Your task to perform on an android device: Install the Yahoo app Image 0: 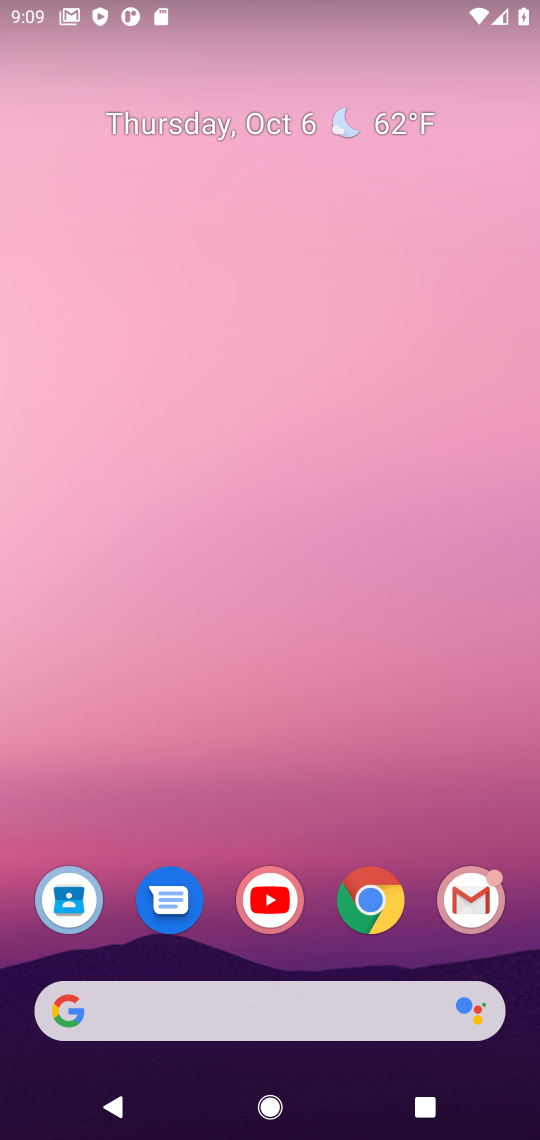
Step 0: press home button
Your task to perform on an android device: Install the Yahoo app Image 1: 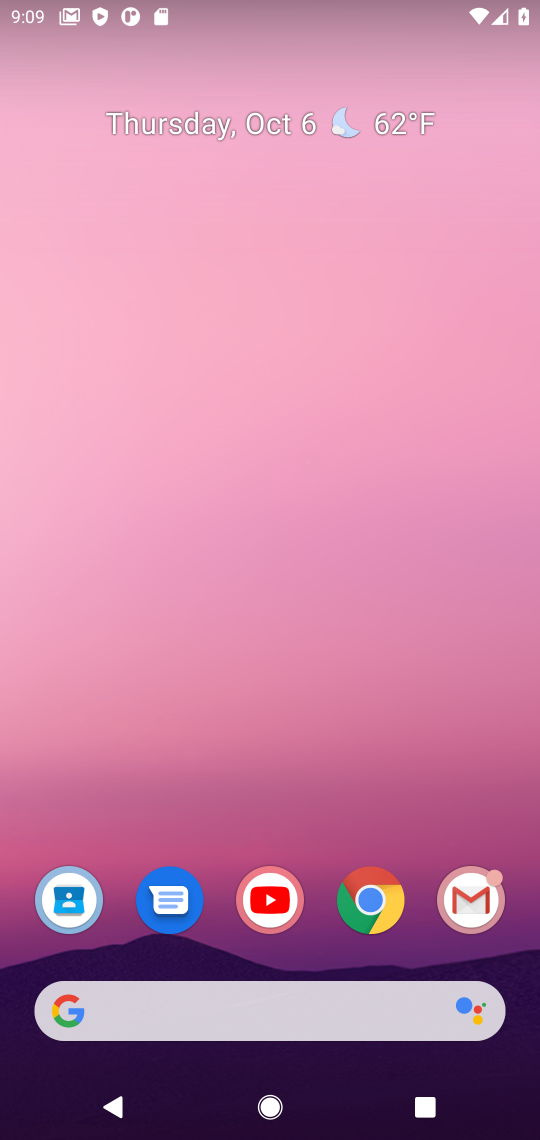
Step 1: drag from (483, 763) to (461, 40)
Your task to perform on an android device: Install the Yahoo app Image 2: 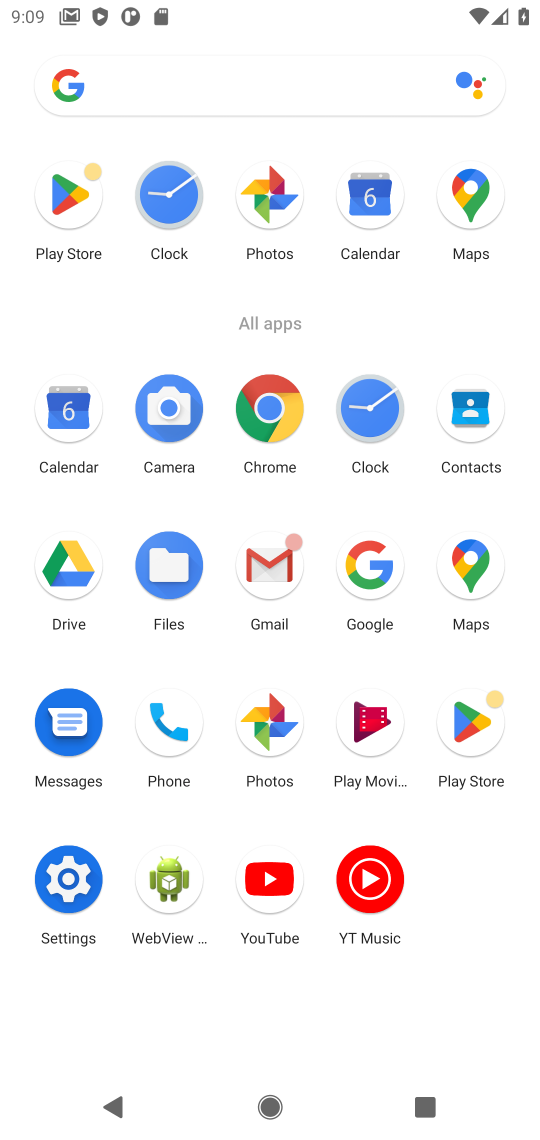
Step 2: click (473, 720)
Your task to perform on an android device: Install the Yahoo app Image 3: 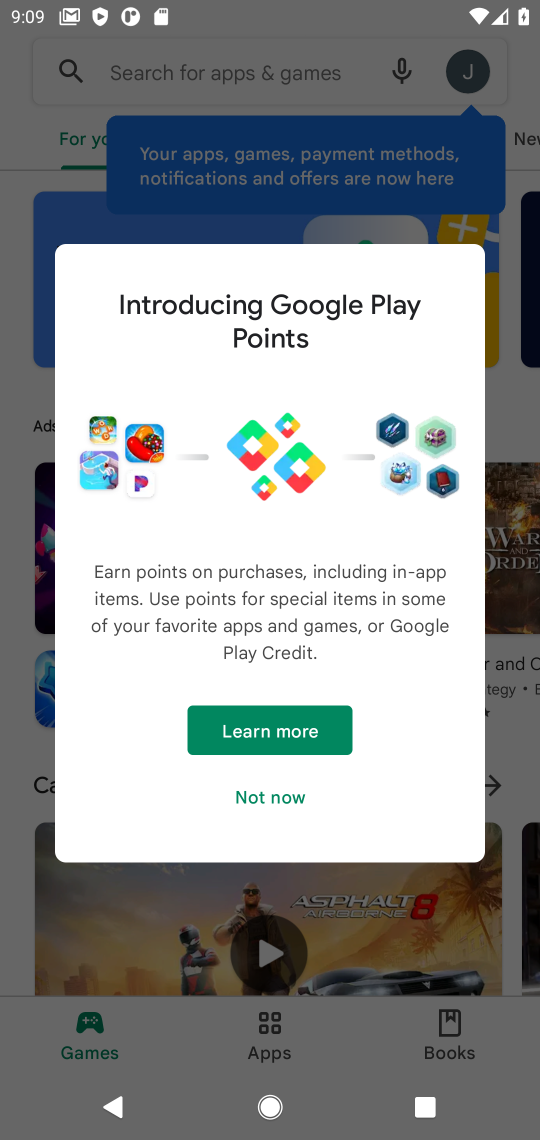
Step 3: click (270, 792)
Your task to perform on an android device: Install the Yahoo app Image 4: 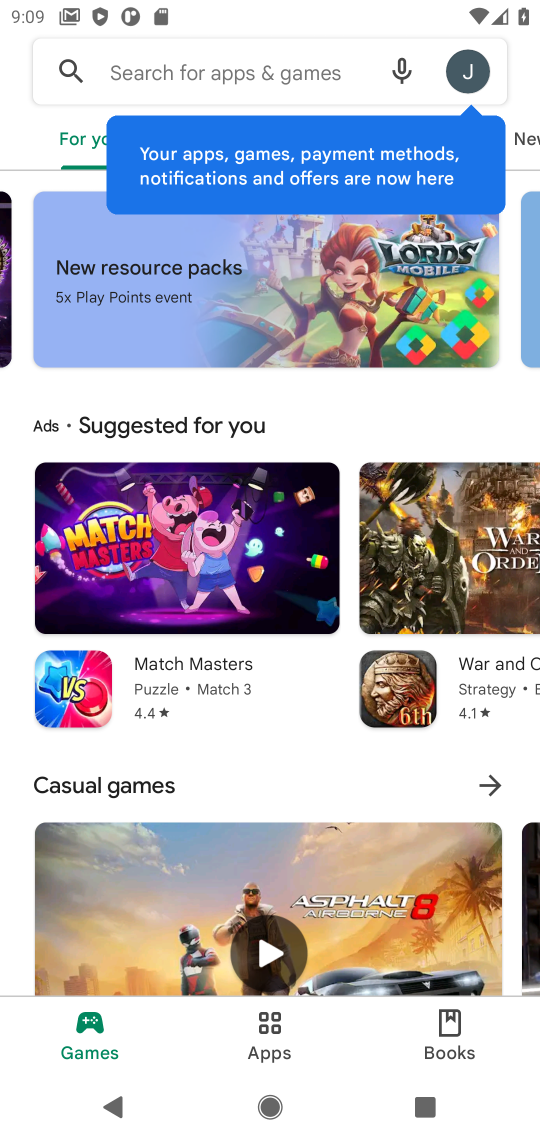
Step 4: click (200, 63)
Your task to perform on an android device: Install the Yahoo app Image 5: 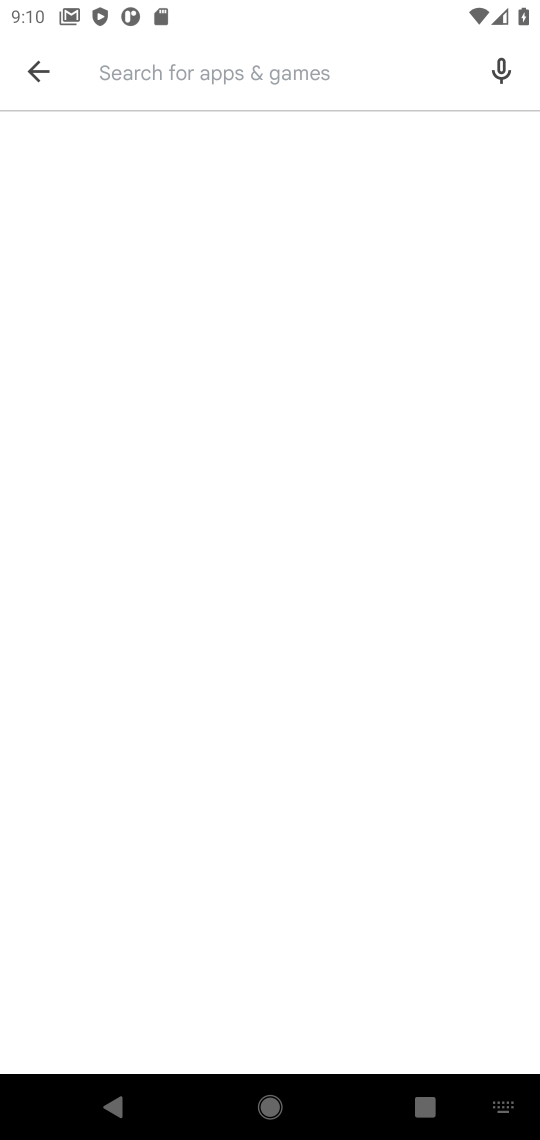
Step 5: type "yahoo app"
Your task to perform on an android device: Install the Yahoo app Image 6: 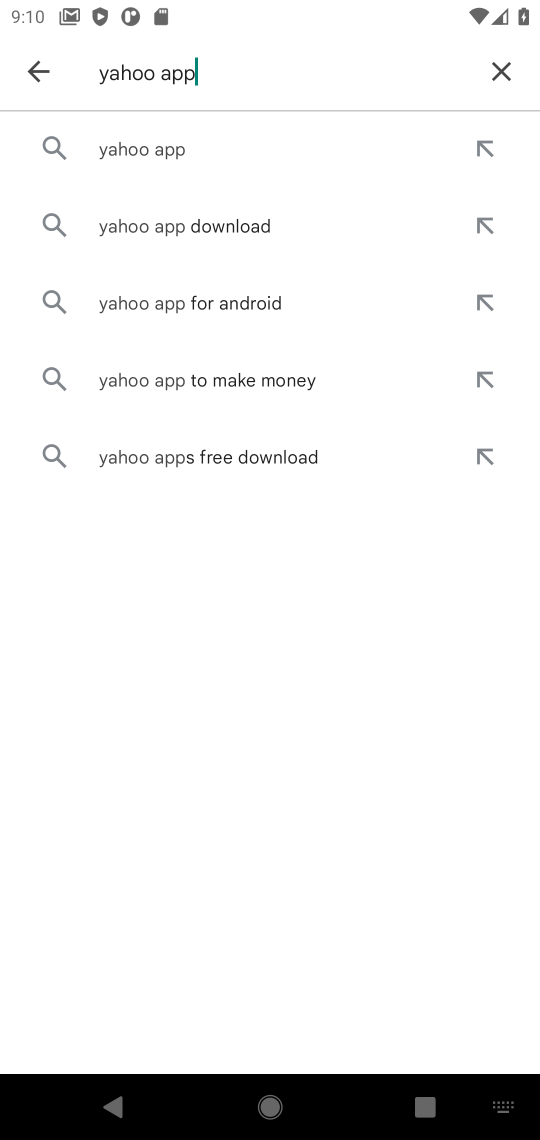
Step 6: press enter
Your task to perform on an android device: Install the Yahoo app Image 7: 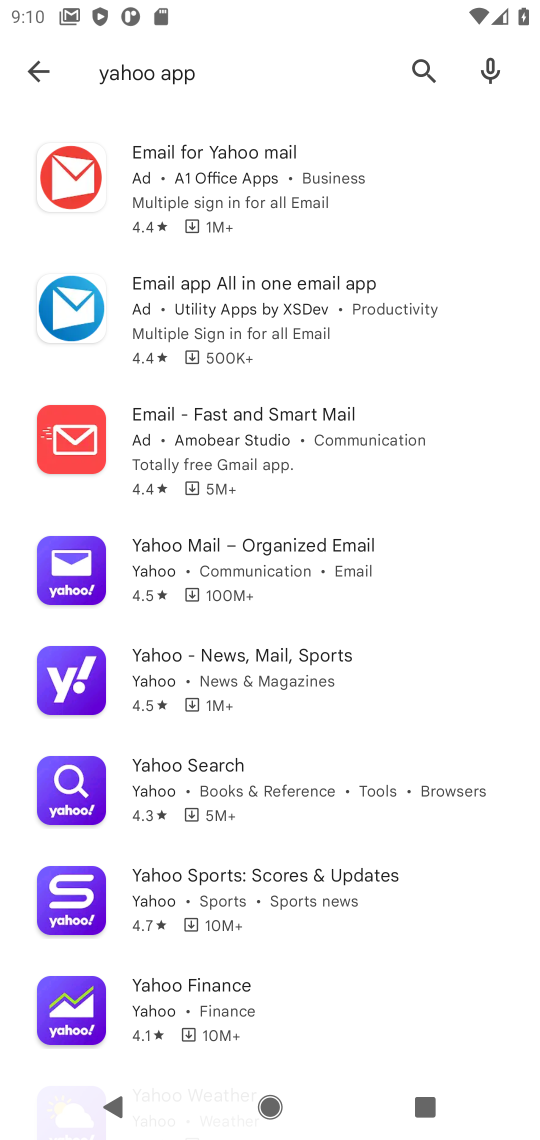
Step 7: click (217, 573)
Your task to perform on an android device: Install the Yahoo app Image 8: 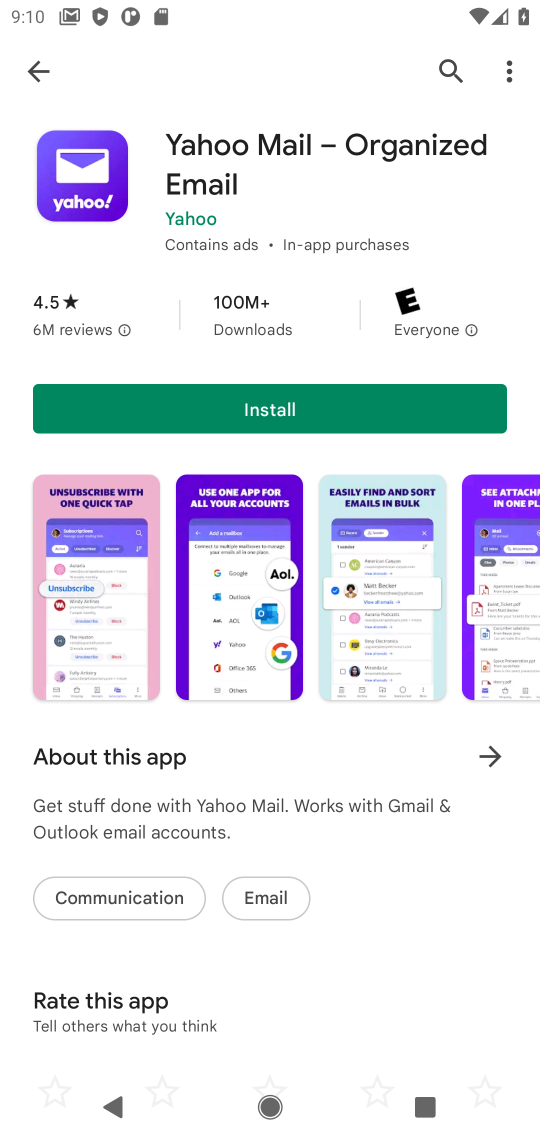
Step 8: click (363, 395)
Your task to perform on an android device: Install the Yahoo app Image 9: 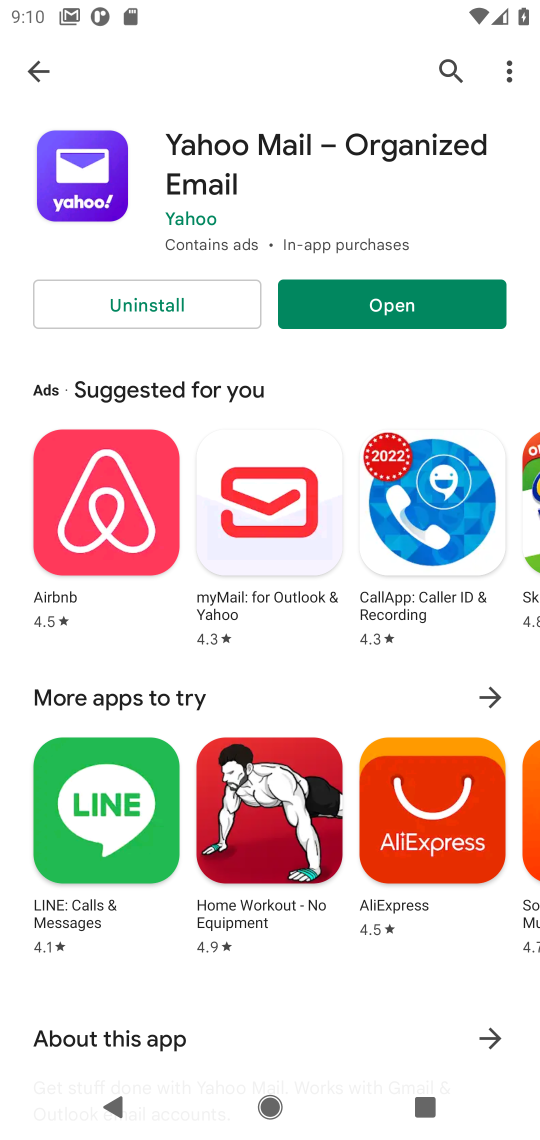
Step 9: task complete